Your task to perform on an android device: manage bookmarks in the chrome app Image 0: 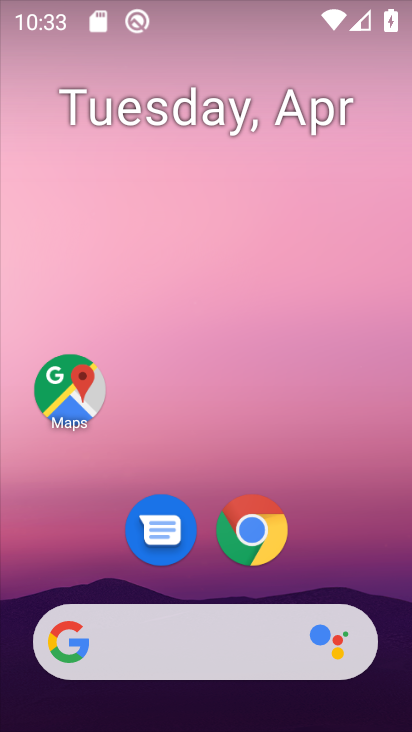
Step 0: drag from (115, 637) to (251, 102)
Your task to perform on an android device: manage bookmarks in the chrome app Image 1: 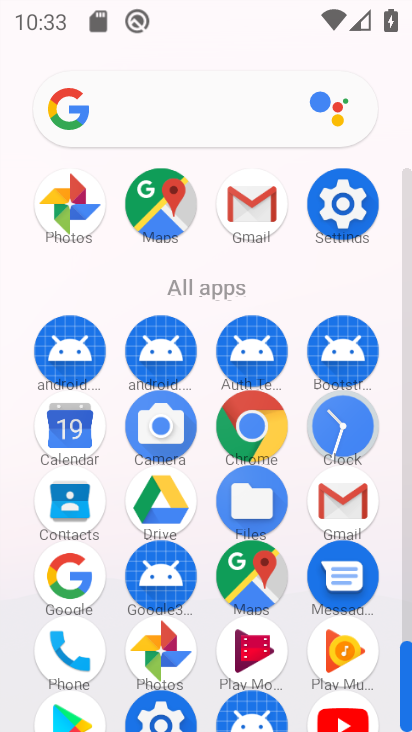
Step 1: click (256, 435)
Your task to perform on an android device: manage bookmarks in the chrome app Image 2: 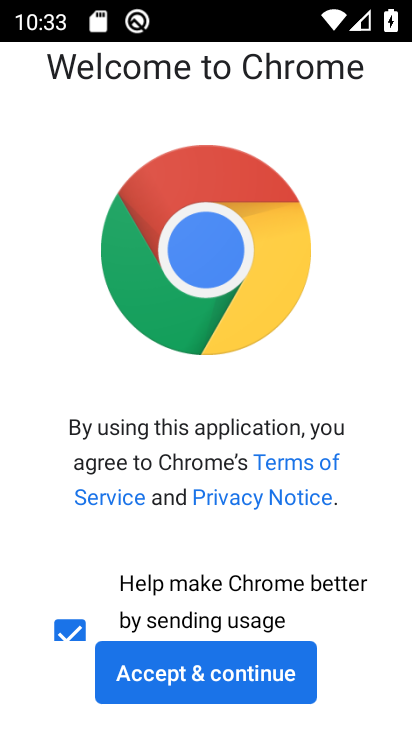
Step 2: click (198, 685)
Your task to perform on an android device: manage bookmarks in the chrome app Image 3: 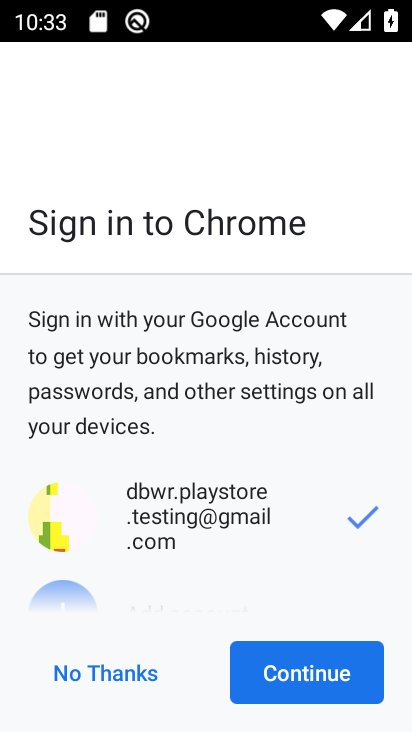
Step 3: click (280, 673)
Your task to perform on an android device: manage bookmarks in the chrome app Image 4: 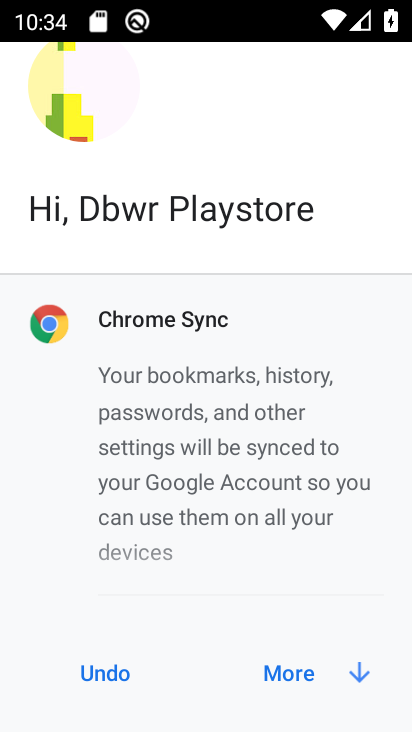
Step 4: click (281, 674)
Your task to perform on an android device: manage bookmarks in the chrome app Image 5: 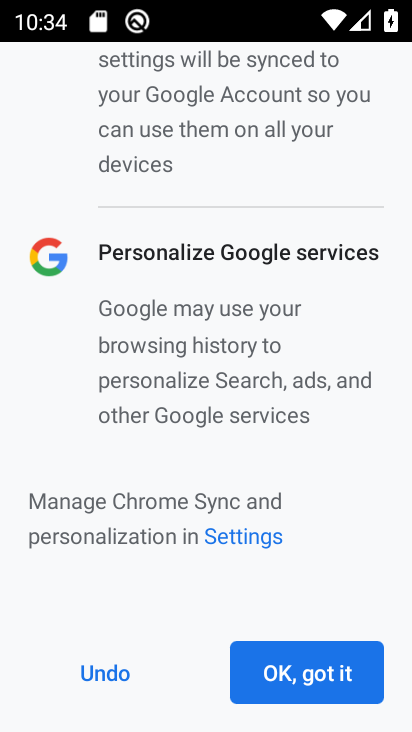
Step 5: click (292, 671)
Your task to perform on an android device: manage bookmarks in the chrome app Image 6: 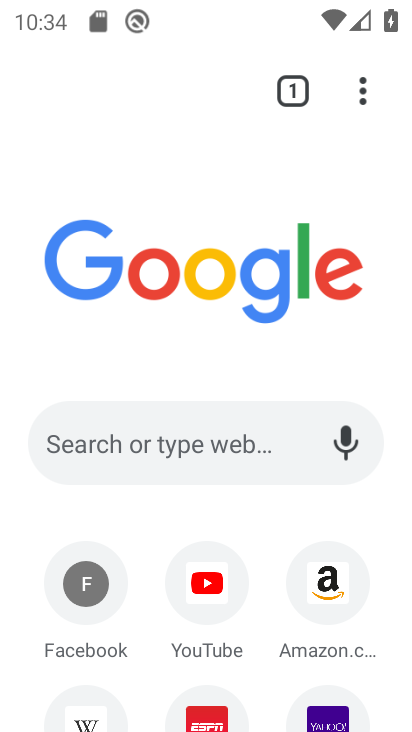
Step 6: click (360, 102)
Your task to perform on an android device: manage bookmarks in the chrome app Image 7: 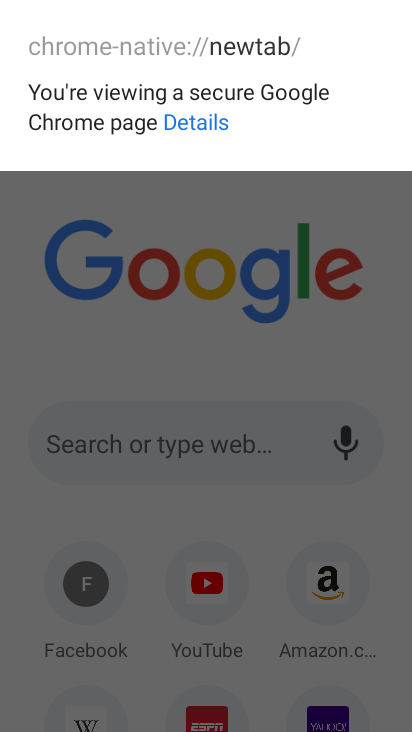
Step 7: press back button
Your task to perform on an android device: manage bookmarks in the chrome app Image 8: 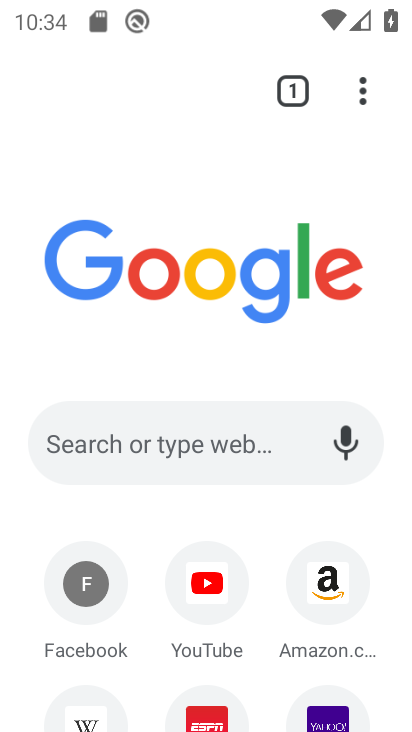
Step 8: click (364, 90)
Your task to perform on an android device: manage bookmarks in the chrome app Image 9: 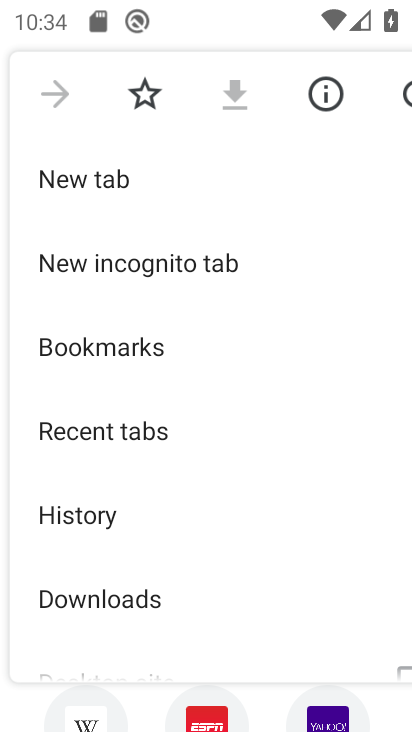
Step 9: click (142, 341)
Your task to perform on an android device: manage bookmarks in the chrome app Image 10: 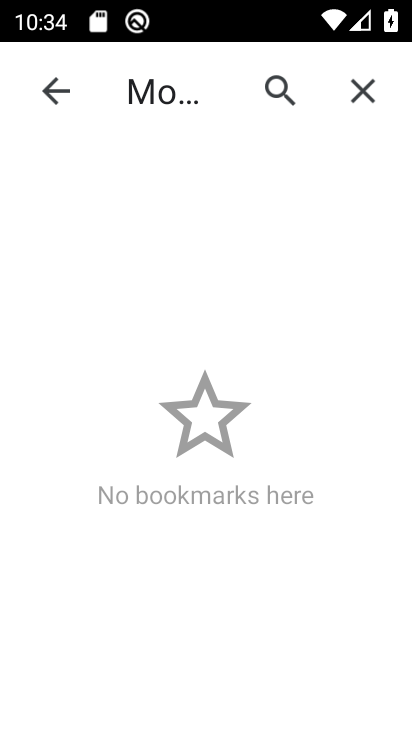
Step 10: task complete